Your task to perform on an android device: turn on airplane mode Image 0: 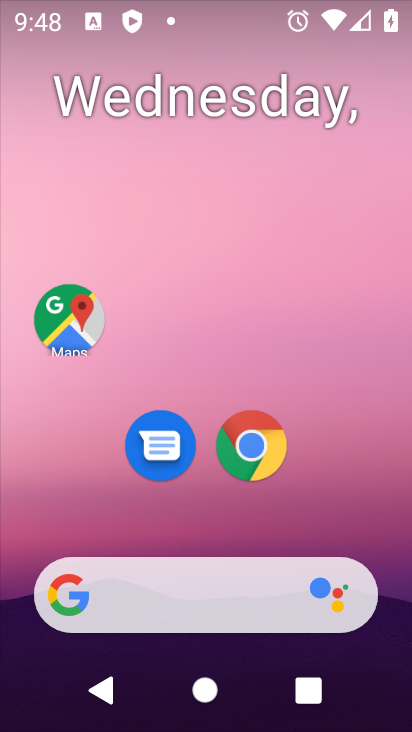
Step 0: drag from (373, 489) to (222, 116)
Your task to perform on an android device: turn on airplane mode Image 1: 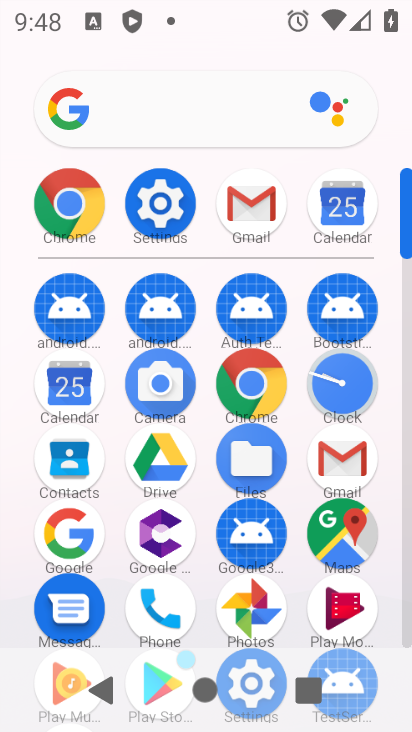
Step 1: click (164, 201)
Your task to perform on an android device: turn on airplane mode Image 2: 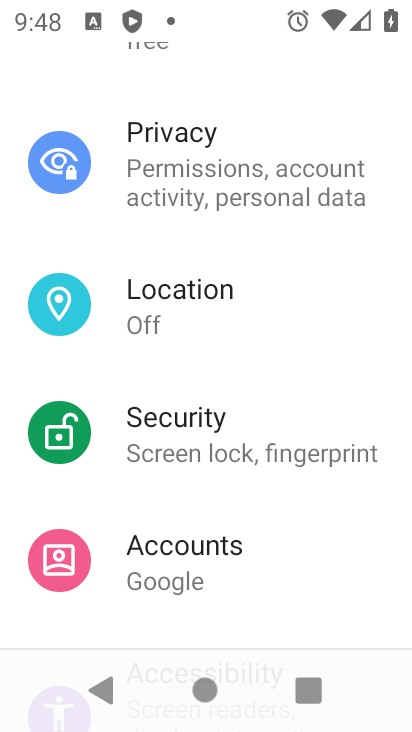
Step 2: drag from (169, 204) to (198, 580)
Your task to perform on an android device: turn on airplane mode Image 3: 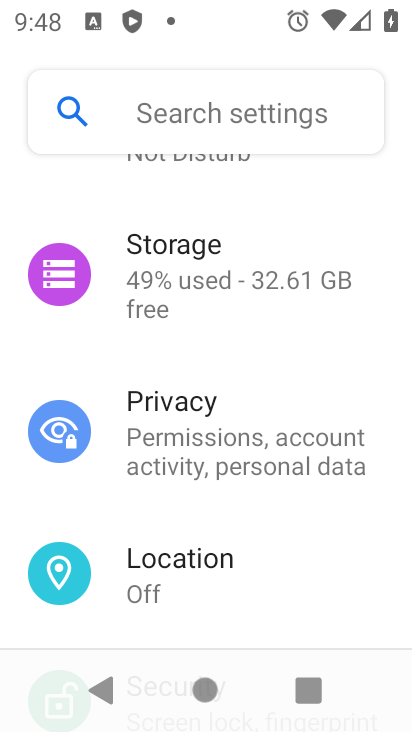
Step 3: drag from (231, 237) to (308, 601)
Your task to perform on an android device: turn on airplane mode Image 4: 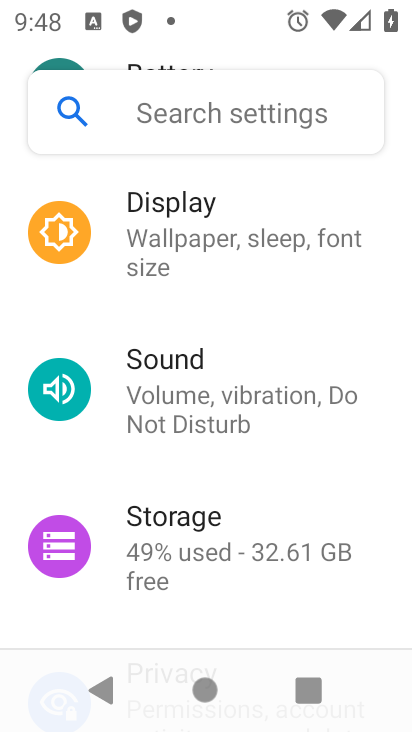
Step 4: drag from (228, 239) to (306, 596)
Your task to perform on an android device: turn on airplane mode Image 5: 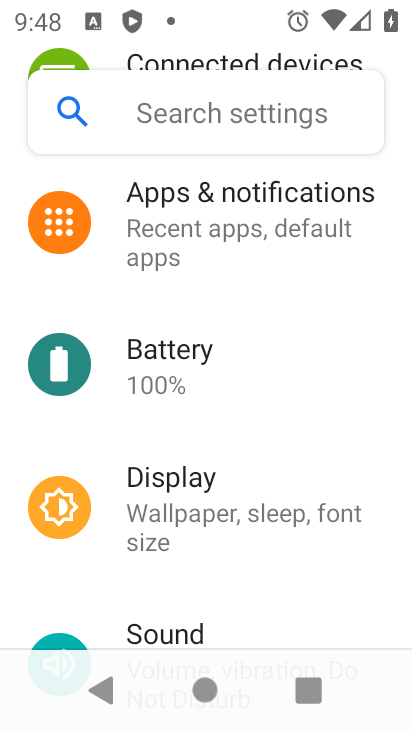
Step 5: drag from (228, 260) to (329, 669)
Your task to perform on an android device: turn on airplane mode Image 6: 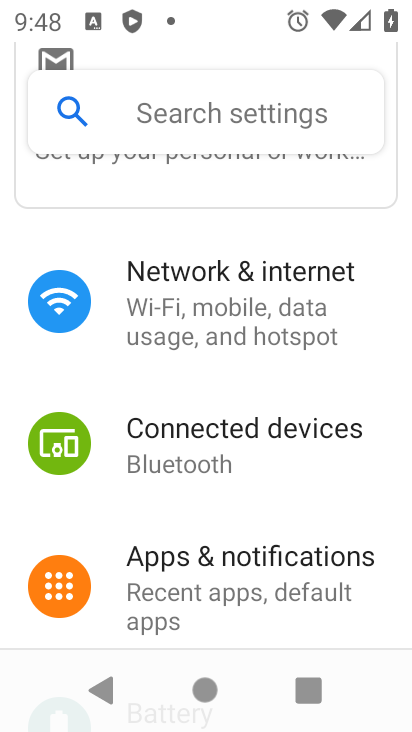
Step 6: drag from (233, 301) to (314, 624)
Your task to perform on an android device: turn on airplane mode Image 7: 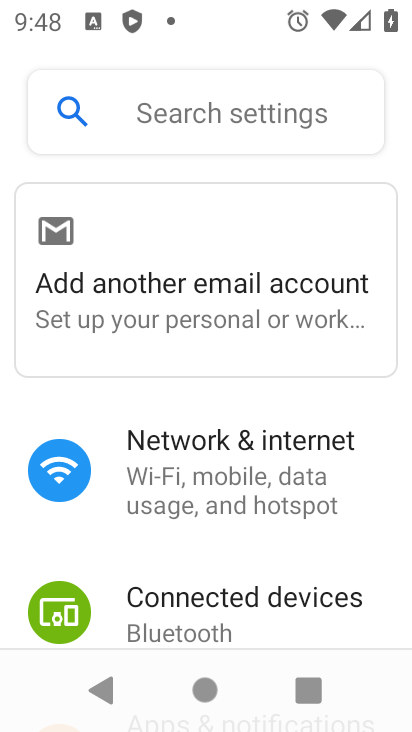
Step 7: click (227, 471)
Your task to perform on an android device: turn on airplane mode Image 8: 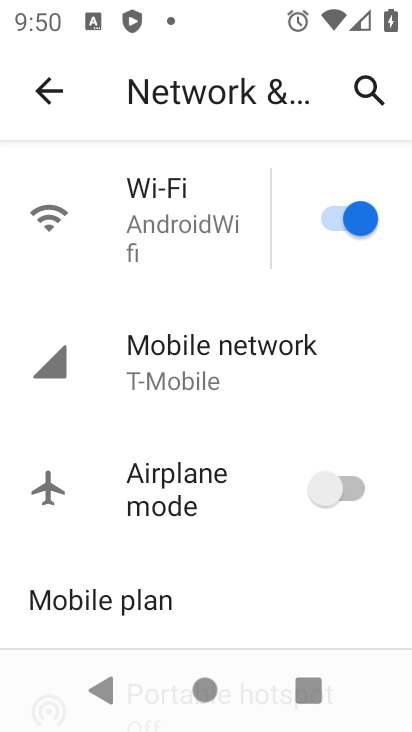
Step 8: click (325, 475)
Your task to perform on an android device: turn on airplane mode Image 9: 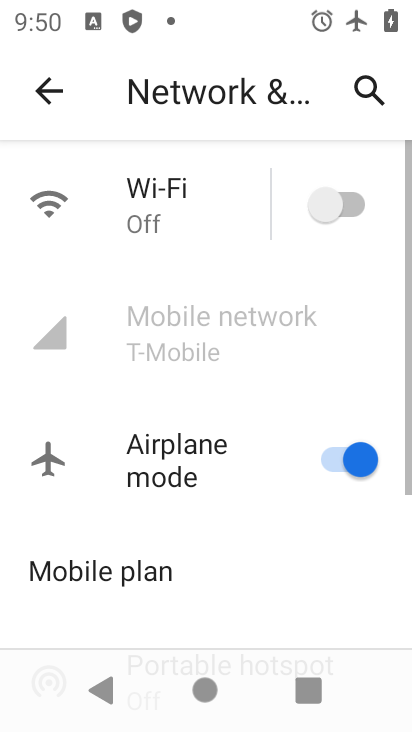
Step 9: task complete